Your task to perform on an android device: Search for sushi restaurants on Maps Image 0: 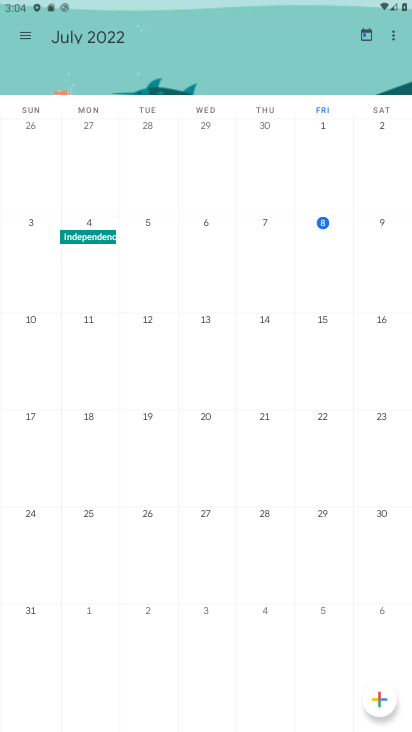
Step 0: press home button
Your task to perform on an android device: Search for sushi restaurants on Maps Image 1: 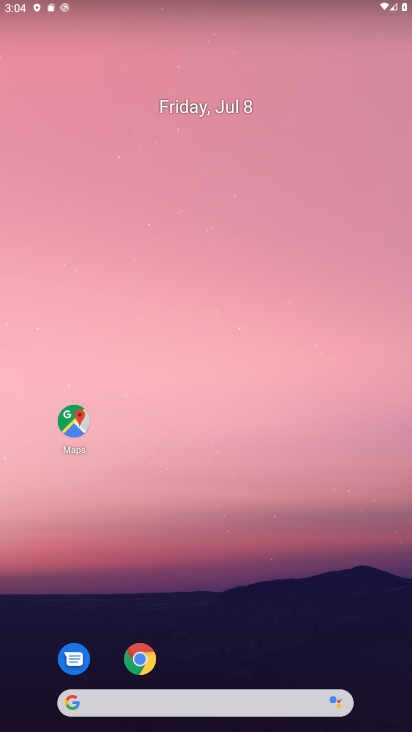
Step 1: click (61, 434)
Your task to perform on an android device: Search for sushi restaurants on Maps Image 2: 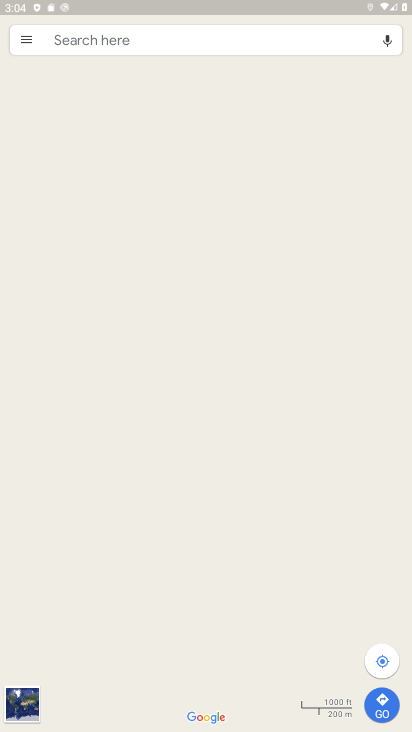
Step 2: click (171, 48)
Your task to perform on an android device: Search for sushi restaurants on Maps Image 3: 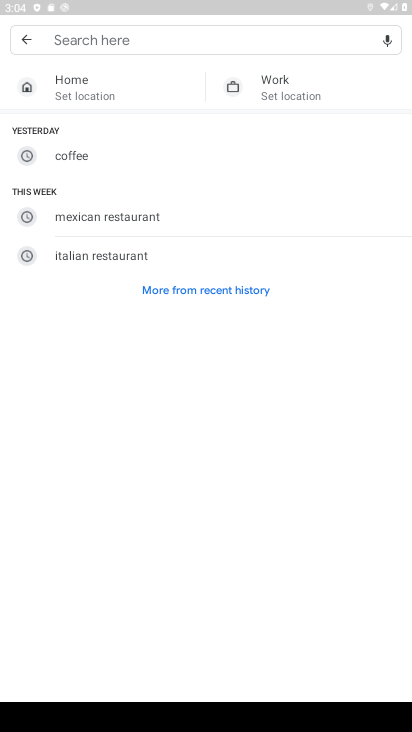
Step 3: type "sushi restaurants"
Your task to perform on an android device: Search for sushi restaurants on Maps Image 4: 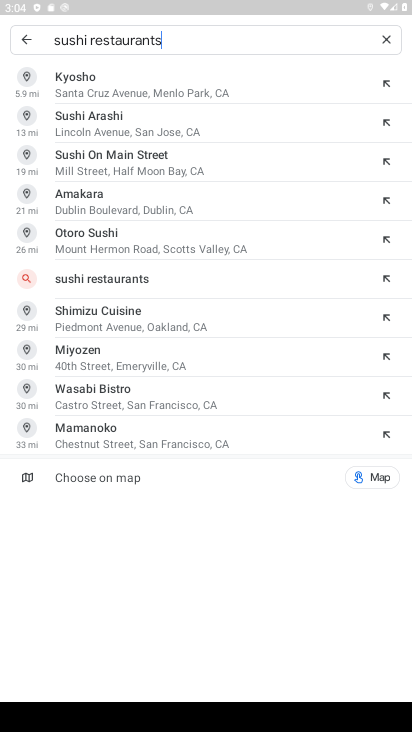
Step 4: click (20, 28)
Your task to perform on an android device: Search for sushi restaurants on Maps Image 5: 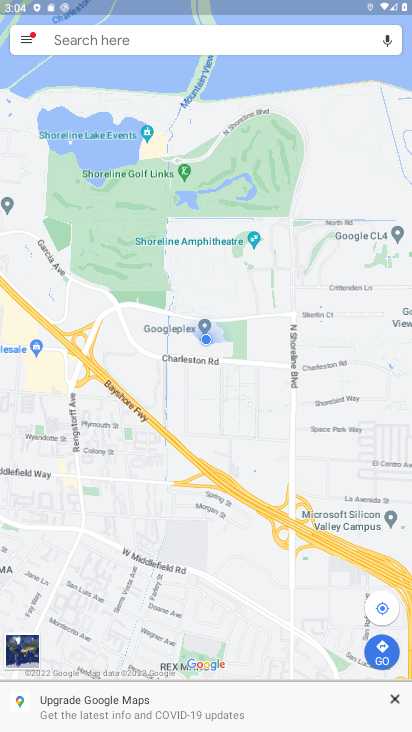
Step 5: click (198, 44)
Your task to perform on an android device: Search for sushi restaurants on Maps Image 6: 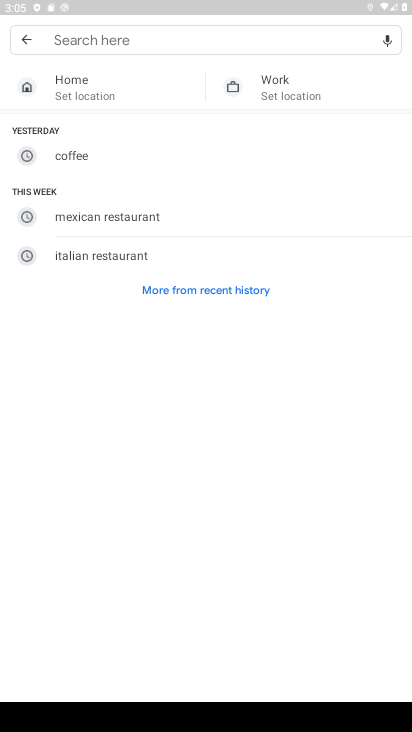
Step 6: type "sushi restaurants"
Your task to perform on an android device: Search for sushi restaurants on Maps Image 7: 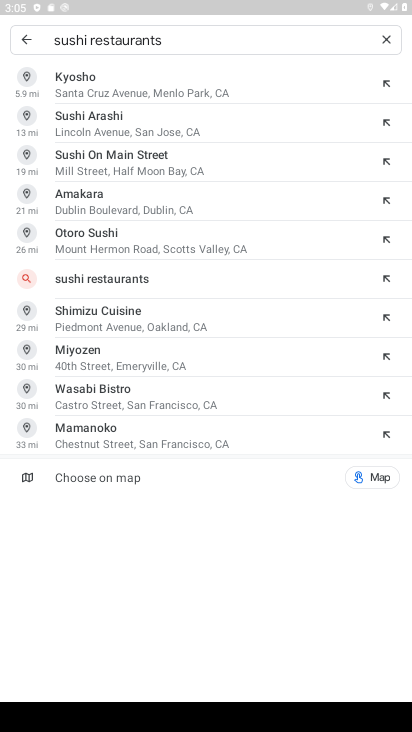
Step 7: click (157, 280)
Your task to perform on an android device: Search for sushi restaurants on Maps Image 8: 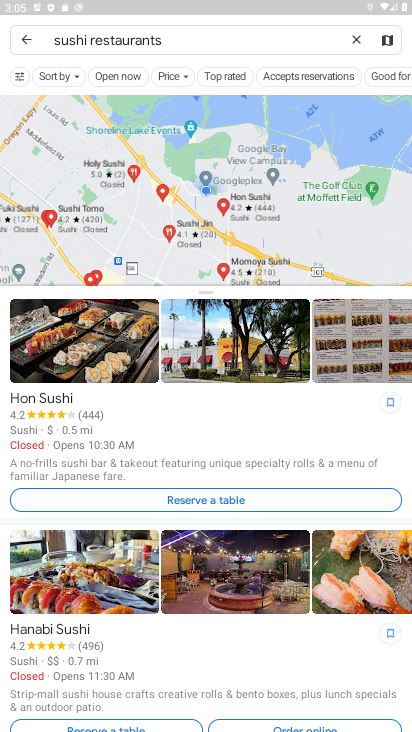
Step 8: task complete